Your task to perform on an android device: Show me popular games on the Play Store Image 0: 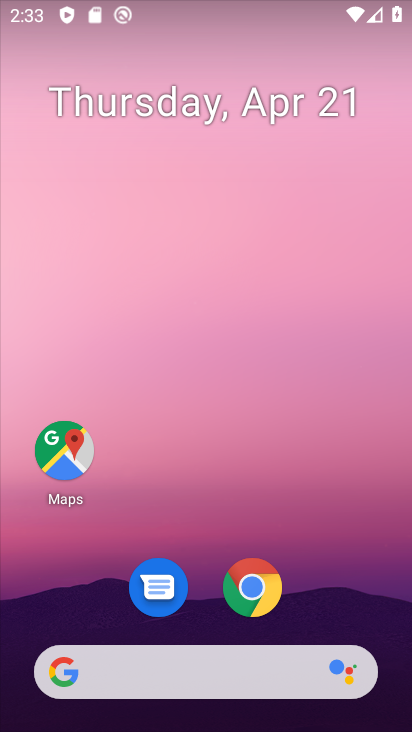
Step 0: drag from (235, 696) to (303, 309)
Your task to perform on an android device: Show me popular games on the Play Store Image 1: 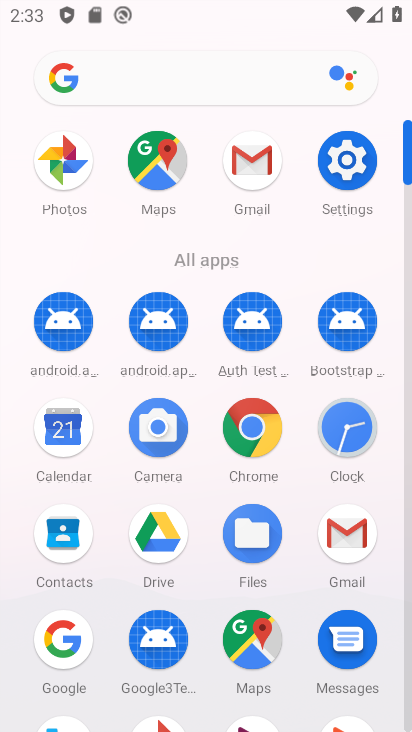
Step 1: drag from (296, 611) to (273, 294)
Your task to perform on an android device: Show me popular games on the Play Store Image 2: 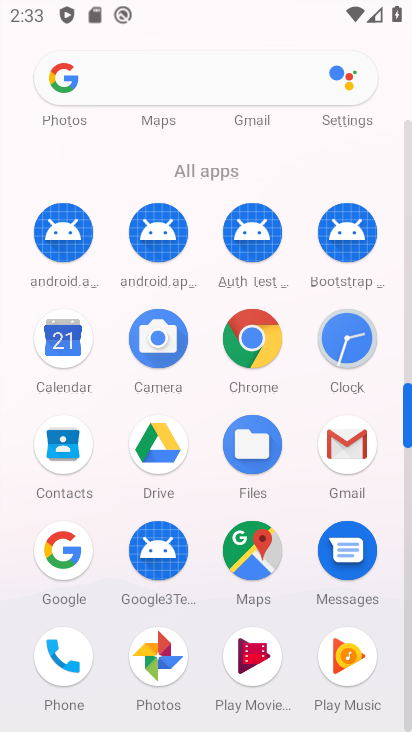
Step 2: drag from (304, 507) to (309, 270)
Your task to perform on an android device: Show me popular games on the Play Store Image 3: 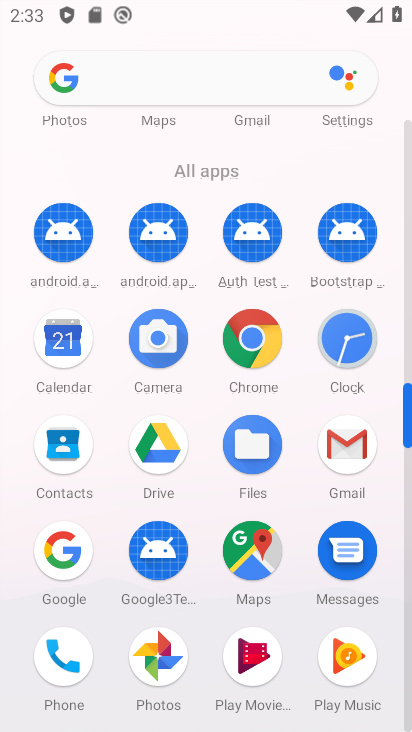
Step 3: drag from (274, 596) to (280, 273)
Your task to perform on an android device: Show me popular games on the Play Store Image 4: 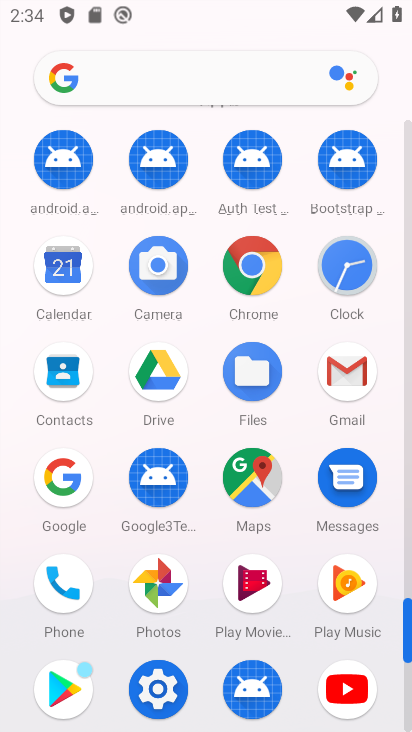
Step 4: click (67, 706)
Your task to perform on an android device: Show me popular games on the Play Store Image 5: 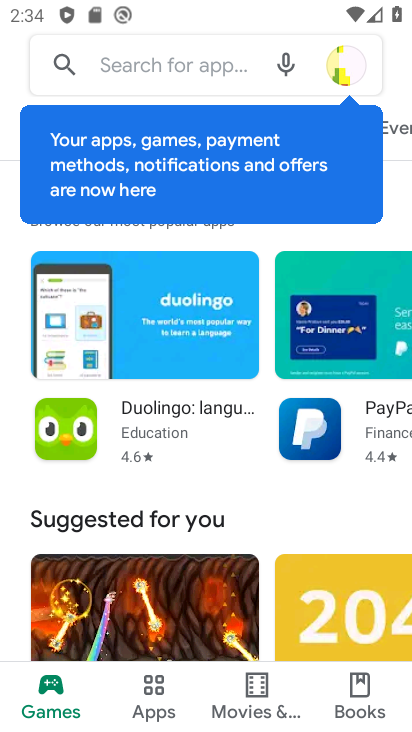
Step 5: click (179, 65)
Your task to perform on an android device: Show me popular games on the Play Store Image 6: 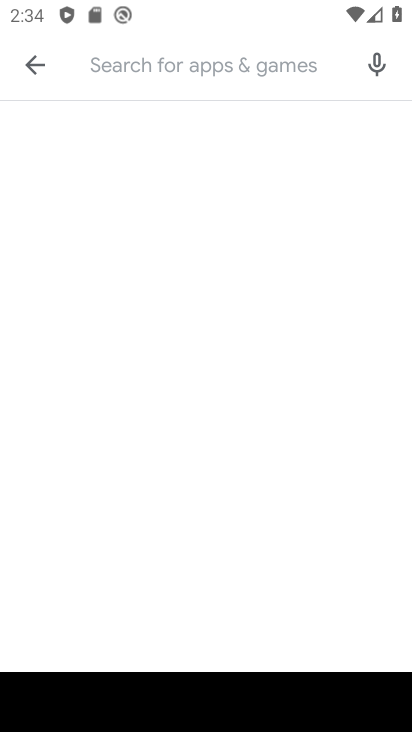
Step 6: type "popular games"
Your task to perform on an android device: Show me popular games on the Play Store Image 7: 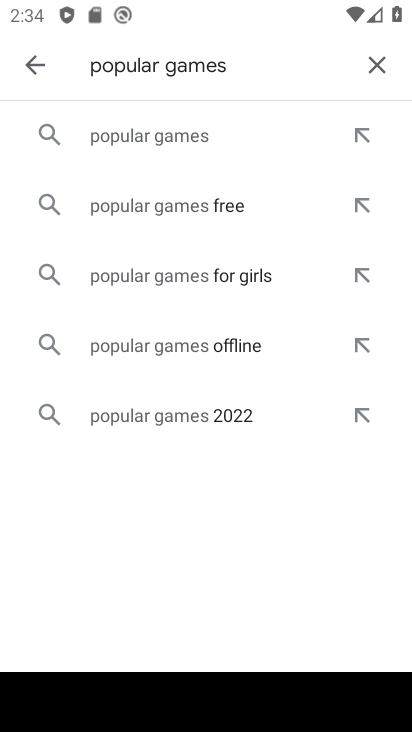
Step 7: click (191, 136)
Your task to perform on an android device: Show me popular games on the Play Store Image 8: 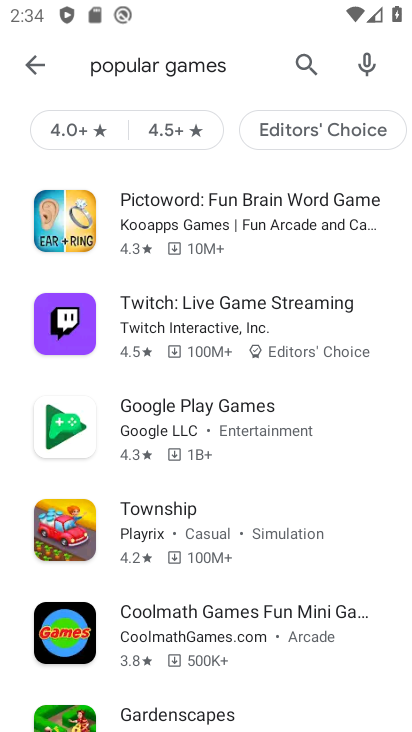
Step 8: task complete